Your task to perform on an android device: Go to sound settings Image 0: 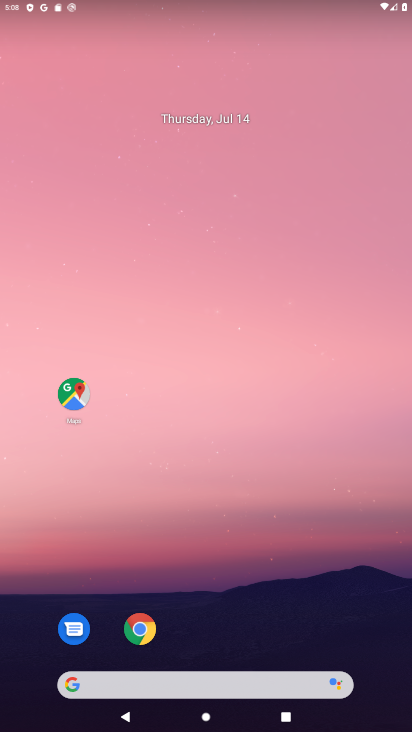
Step 0: drag from (340, 558) to (318, 48)
Your task to perform on an android device: Go to sound settings Image 1: 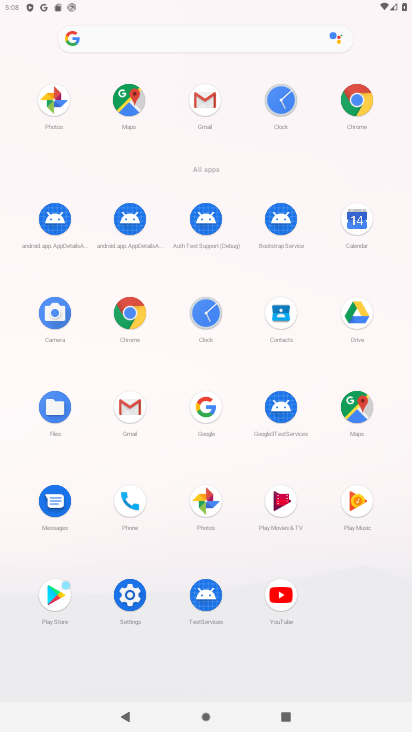
Step 1: click (134, 586)
Your task to perform on an android device: Go to sound settings Image 2: 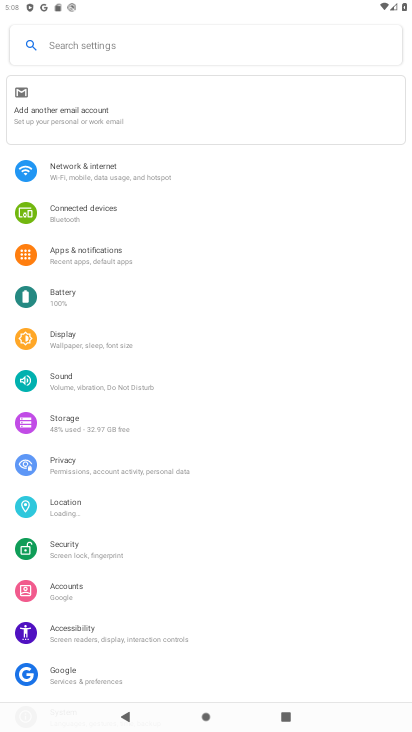
Step 2: click (87, 385)
Your task to perform on an android device: Go to sound settings Image 3: 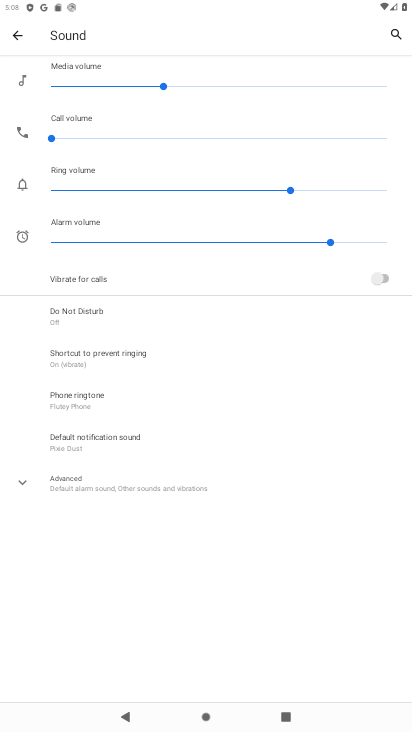
Step 3: task complete